Your task to perform on an android device: Open network settings Image 0: 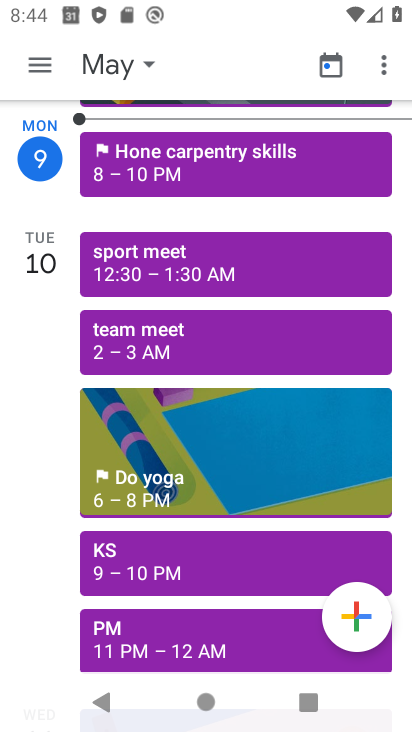
Step 0: press home button
Your task to perform on an android device: Open network settings Image 1: 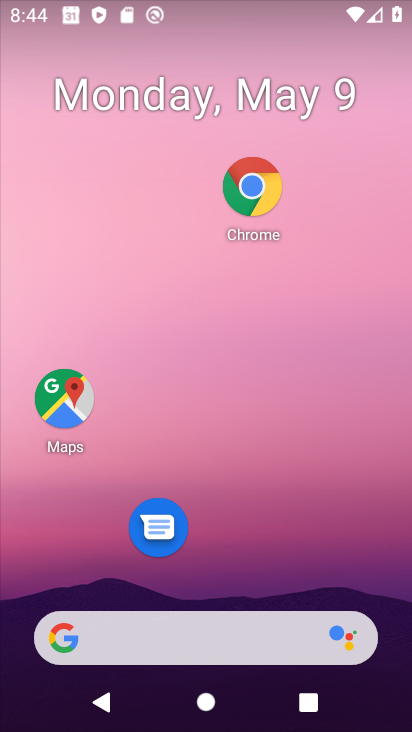
Step 1: drag from (205, 577) to (247, 45)
Your task to perform on an android device: Open network settings Image 2: 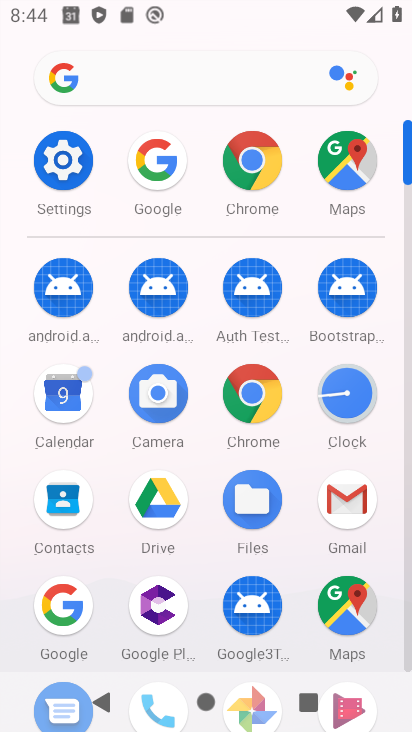
Step 2: click (57, 155)
Your task to perform on an android device: Open network settings Image 3: 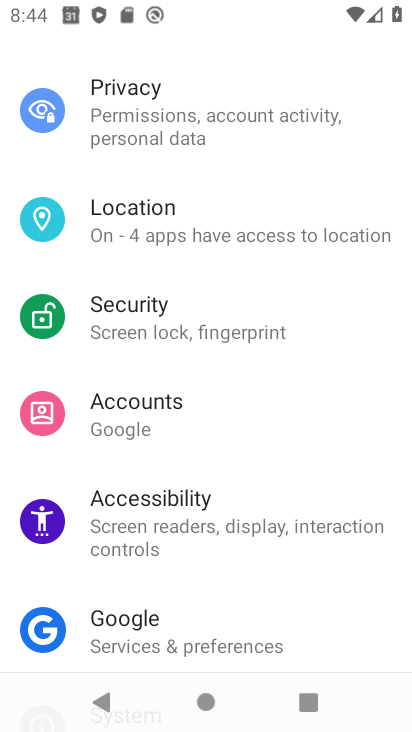
Step 3: drag from (179, 148) to (203, 660)
Your task to perform on an android device: Open network settings Image 4: 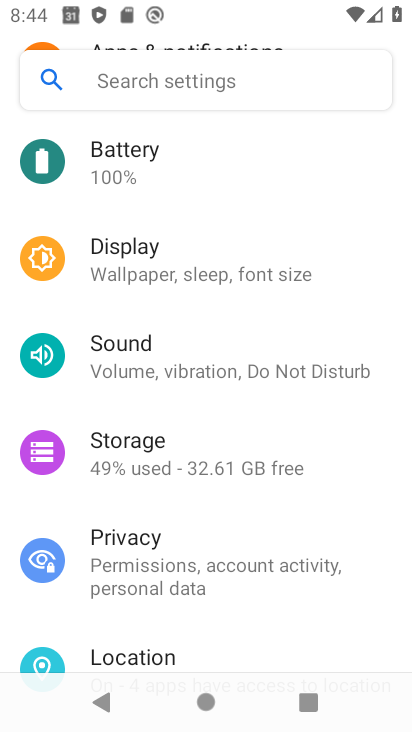
Step 4: drag from (203, 143) to (217, 624)
Your task to perform on an android device: Open network settings Image 5: 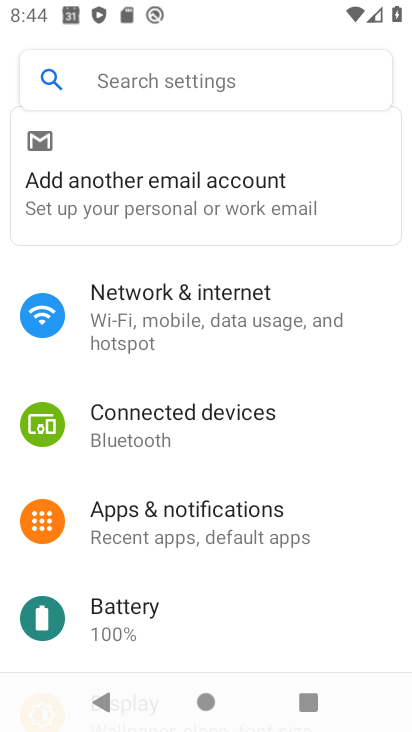
Step 5: click (172, 310)
Your task to perform on an android device: Open network settings Image 6: 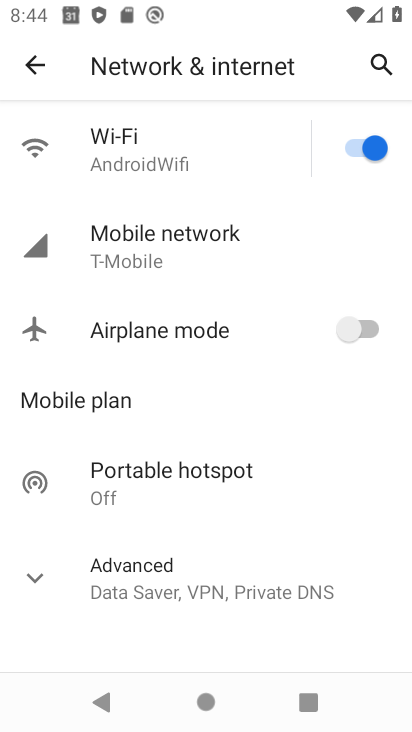
Step 6: click (30, 579)
Your task to perform on an android device: Open network settings Image 7: 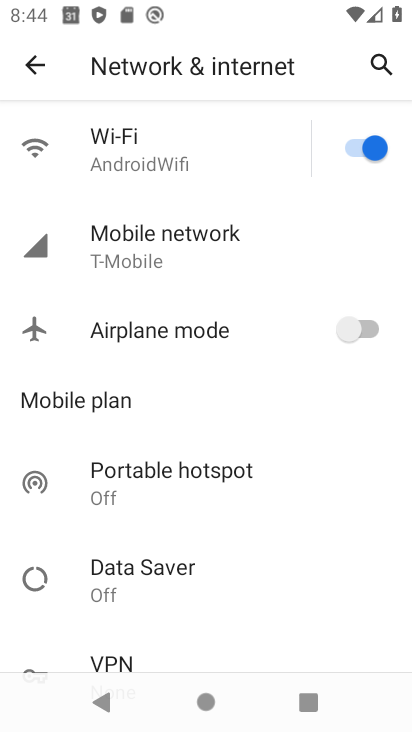
Step 7: task complete